Your task to perform on an android device: Open the web browser Image 0: 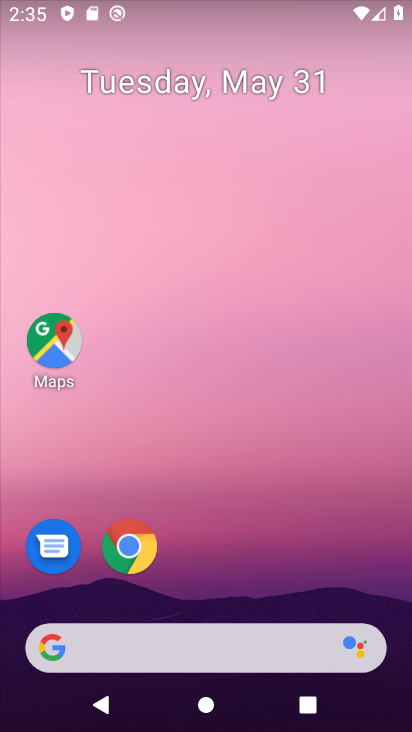
Step 0: click (269, 661)
Your task to perform on an android device: Open the web browser Image 1: 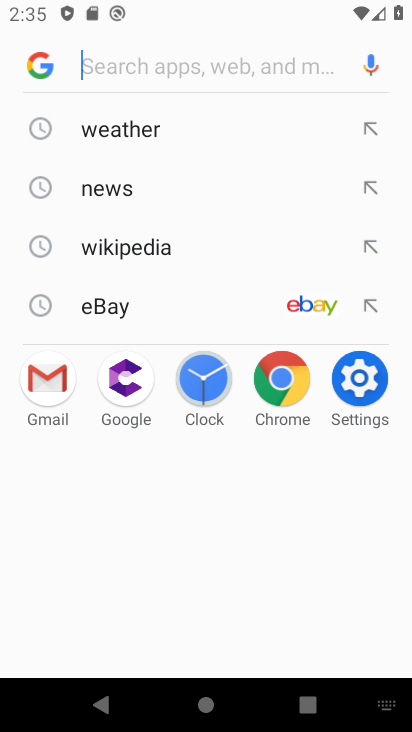
Step 1: task complete